Your task to perform on an android device: change the clock display to show seconds Image 0: 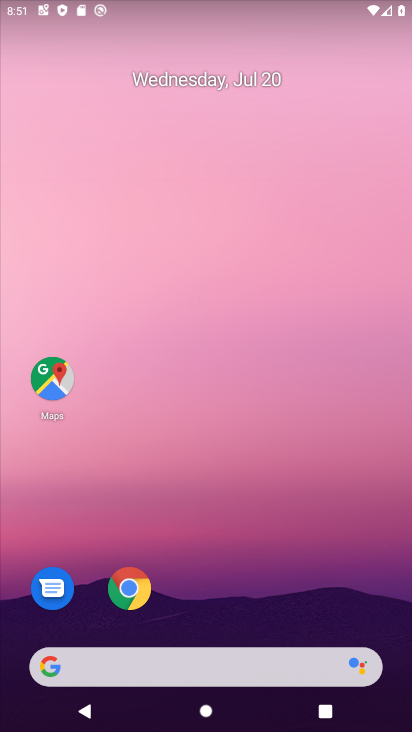
Step 0: drag from (199, 635) to (177, 15)
Your task to perform on an android device: change the clock display to show seconds Image 1: 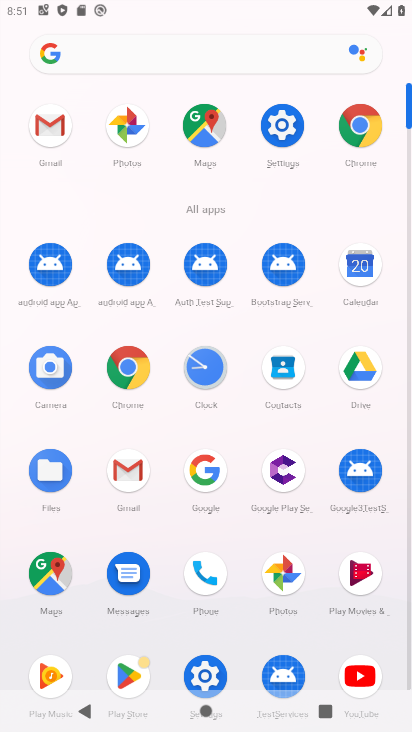
Step 1: click (210, 358)
Your task to perform on an android device: change the clock display to show seconds Image 2: 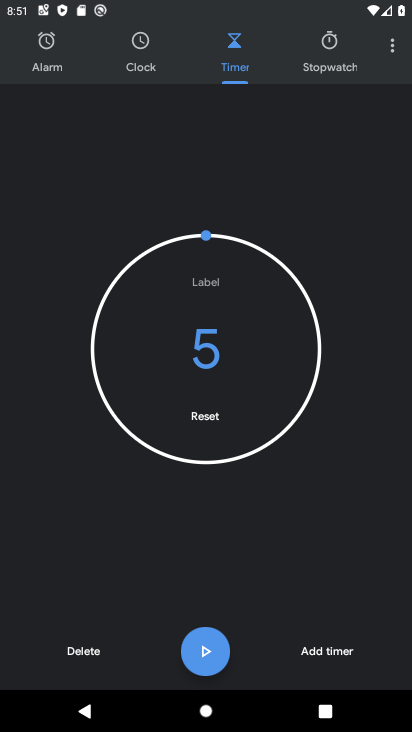
Step 2: click (399, 61)
Your task to perform on an android device: change the clock display to show seconds Image 3: 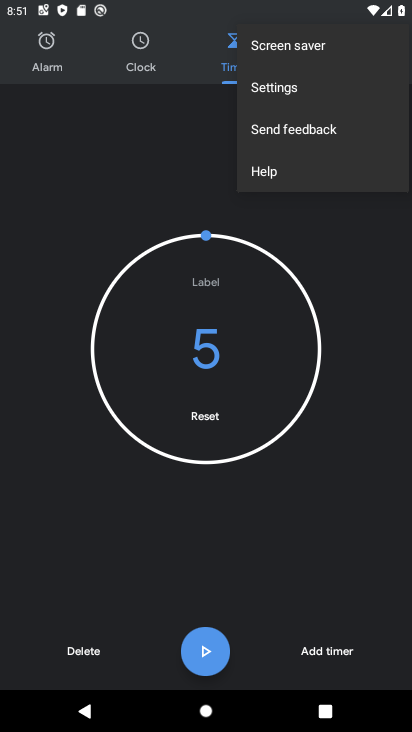
Step 3: click (358, 73)
Your task to perform on an android device: change the clock display to show seconds Image 4: 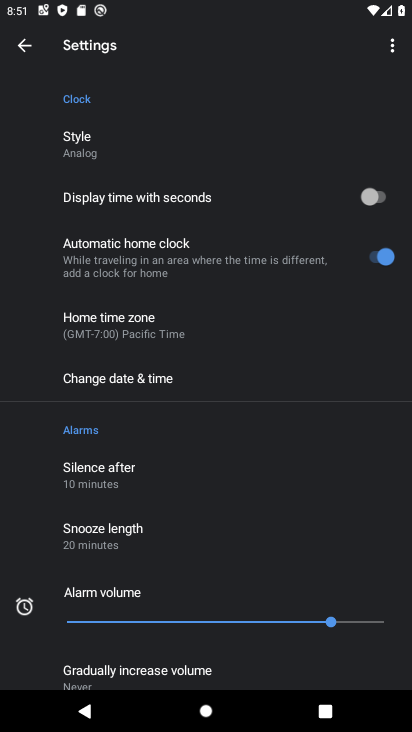
Step 4: click (388, 198)
Your task to perform on an android device: change the clock display to show seconds Image 5: 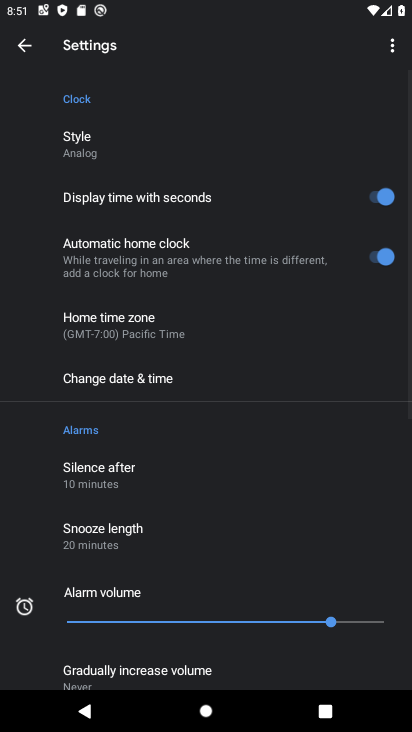
Step 5: task complete